Your task to perform on an android device: change keyboard looks Image 0: 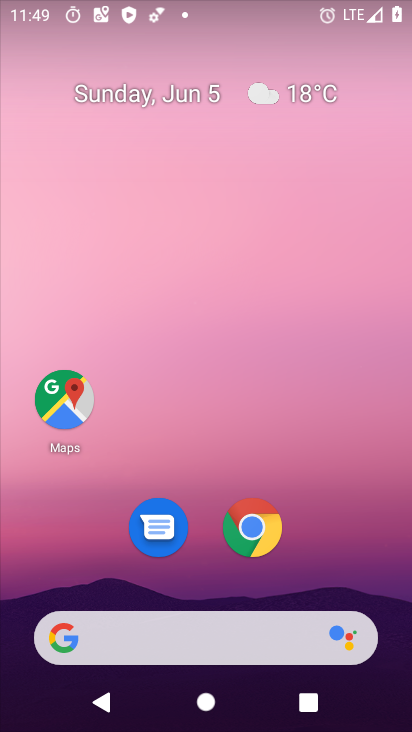
Step 0: drag from (308, 335) to (234, 61)
Your task to perform on an android device: change keyboard looks Image 1: 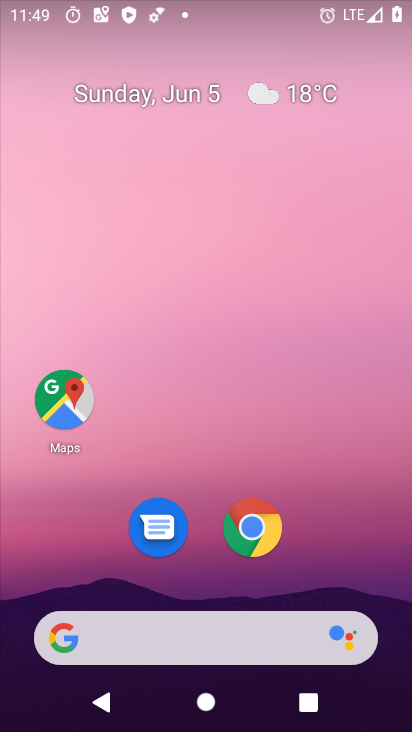
Step 1: drag from (347, 565) to (227, 3)
Your task to perform on an android device: change keyboard looks Image 2: 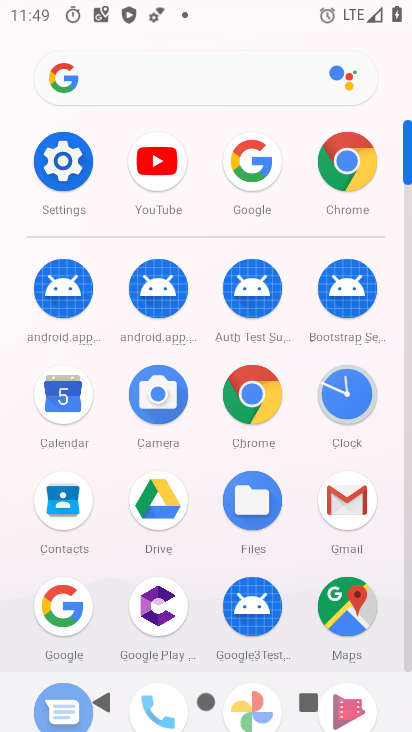
Step 2: click (66, 166)
Your task to perform on an android device: change keyboard looks Image 3: 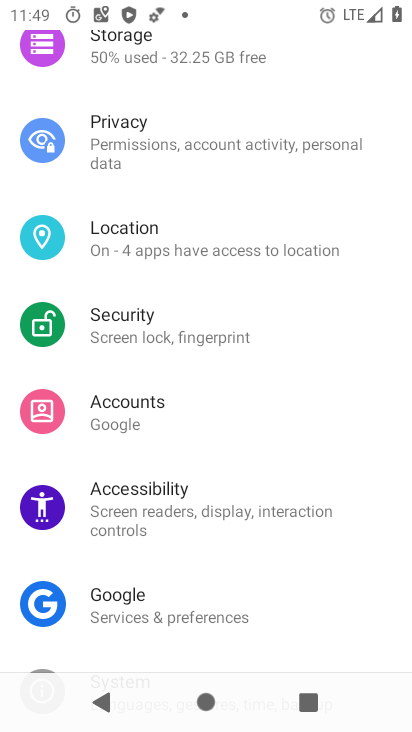
Step 3: drag from (231, 600) to (259, 252)
Your task to perform on an android device: change keyboard looks Image 4: 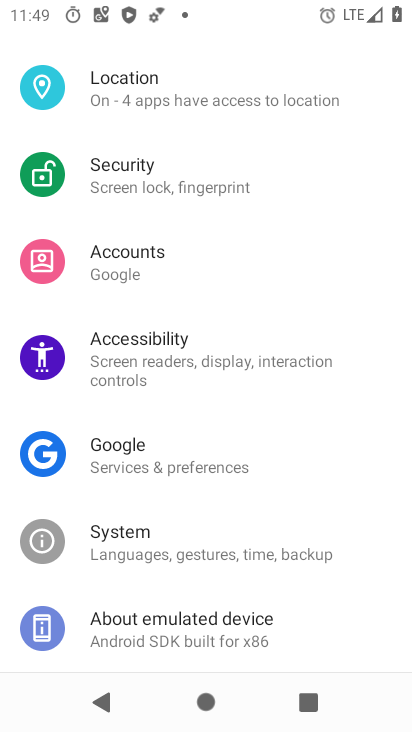
Step 4: click (208, 543)
Your task to perform on an android device: change keyboard looks Image 5: 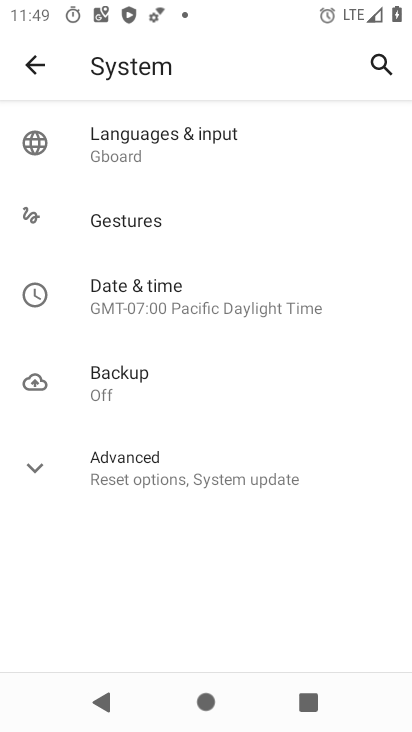
Step 5: click (252, 137)
Your task to perform on an android device: change keyboard looks Image 6: 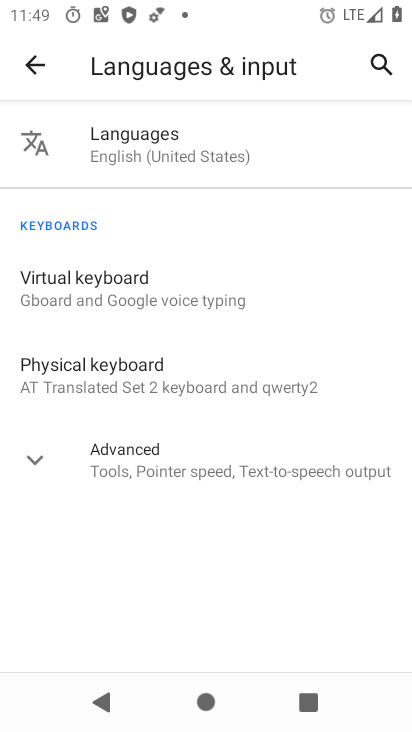
Step 6: click (172, 273)
Your task to perform on an android device: change keyboard looks Image 7: 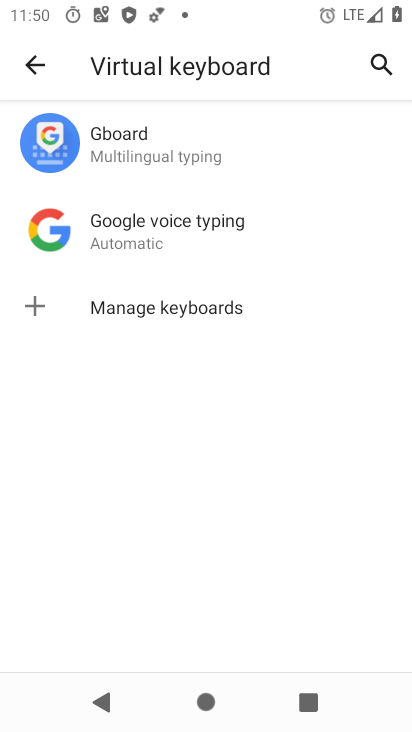
Step 7: click (177, 137)
Your task to perform on an android device: change keyboard looks Image 8: 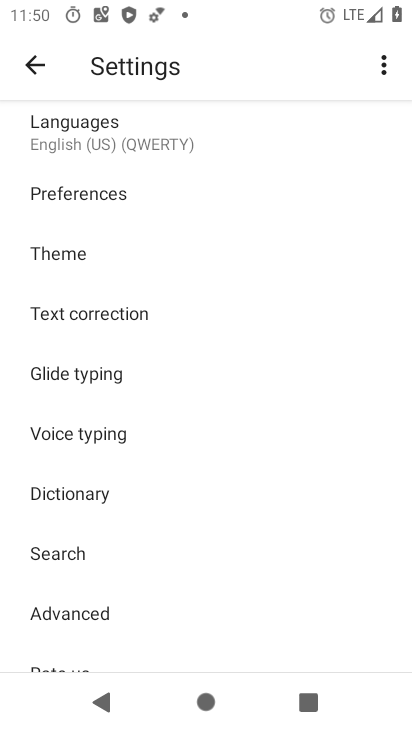
Step 8: click (122, 253)
Your task to perform on an android device: change keyboard looks Image 9: 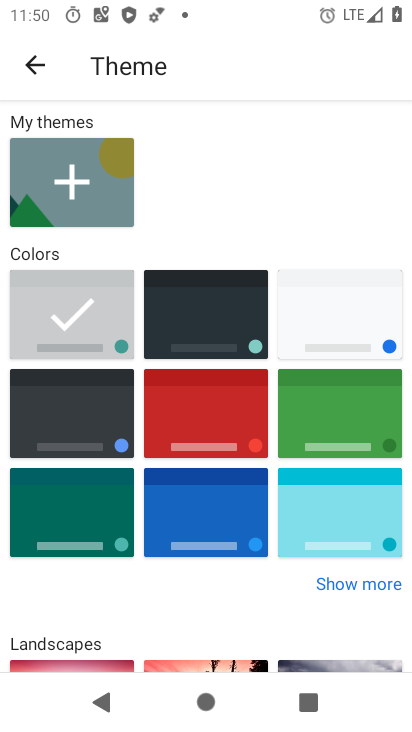
Step 9: click (188, 398)
Your task to perform on an android device: change keyboard looks Image 10: 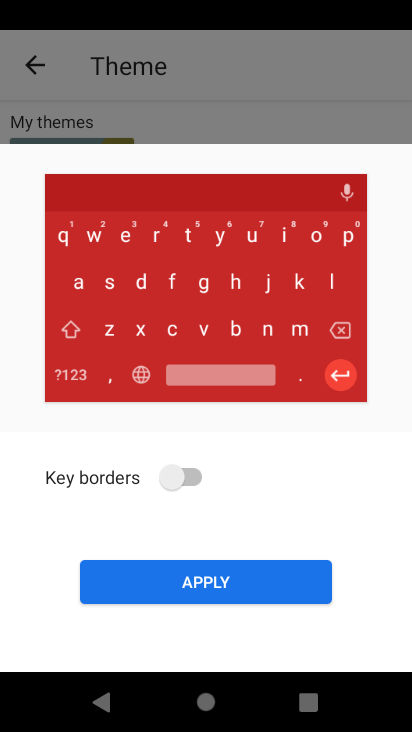
Step 10: click (206, 579)
Your task to perform on an android device: change keyboard looks Image 11: 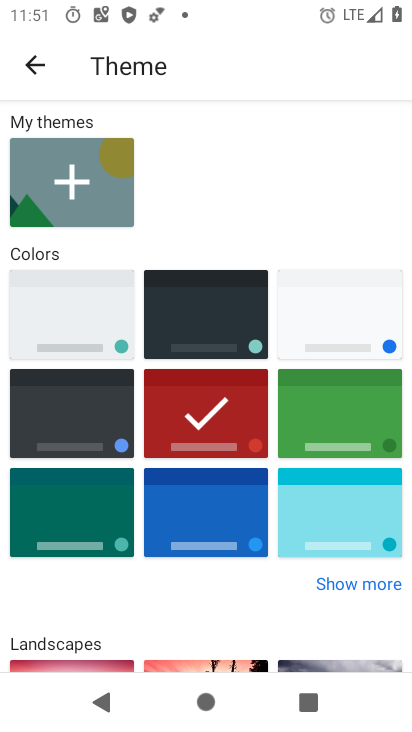
Step 11: task complete